Your task to perform on an android device: Set the phone to "Do not disturb". Image 0: 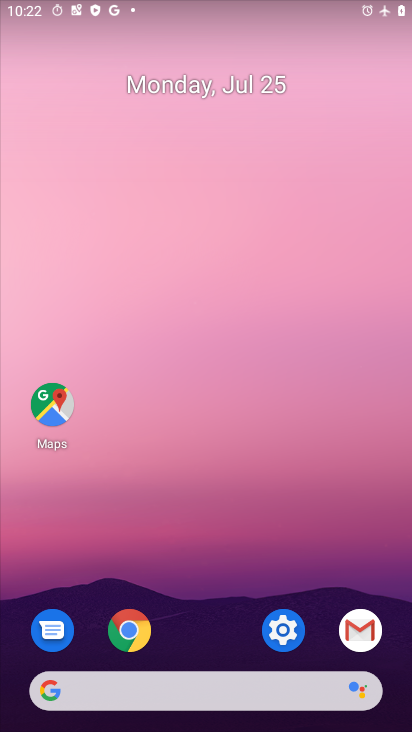
Step 0: click (282, 624)
Your task to perform on an android device: Set the phone to "Do not disturb". Image 1: 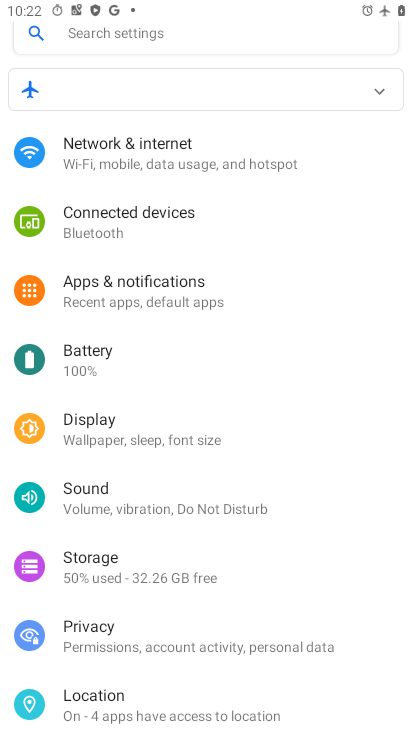
Step 1: click (135, 31)
Your task to perform on an android device: Set the phone to "Do not disturb". Image 2: 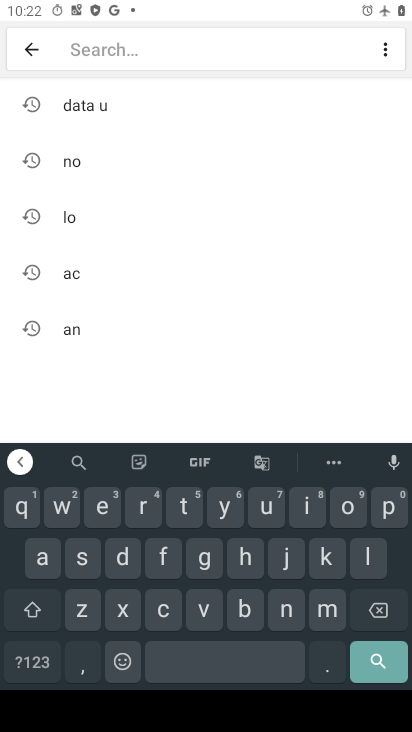
Step 2: click (122, 550)
Your task to perform on an android device: Set the phone to "Do not disturb". Image 3: 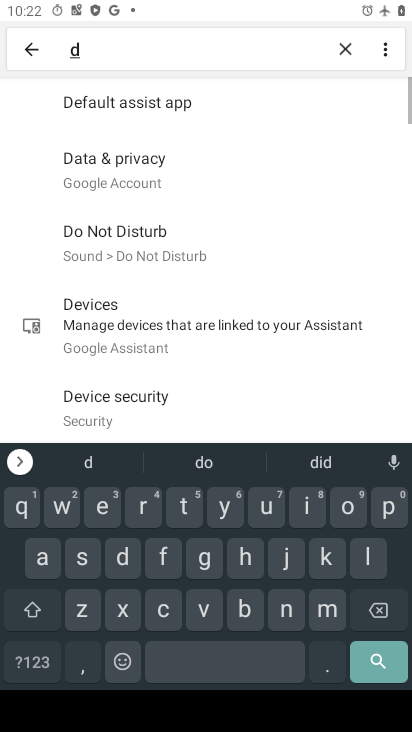
Step 3: click (295, 610)
Your task to perform on an android device: Set the phone to "Do not disturb". Image 4: 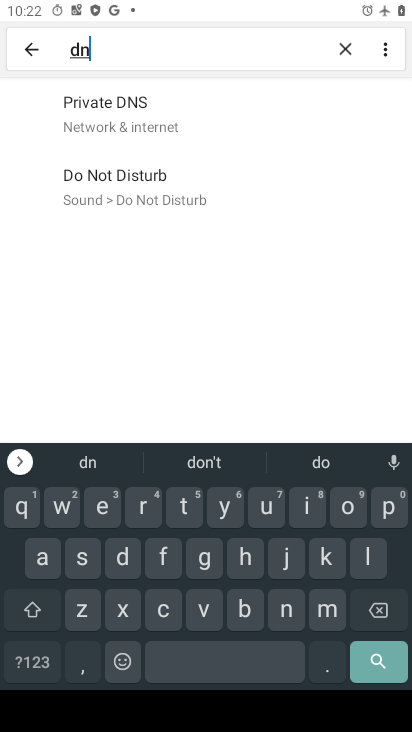
Step 4: click (148, 191)
Your task to perform on an android device: Set the phone to "Do not disturb". Image 5: 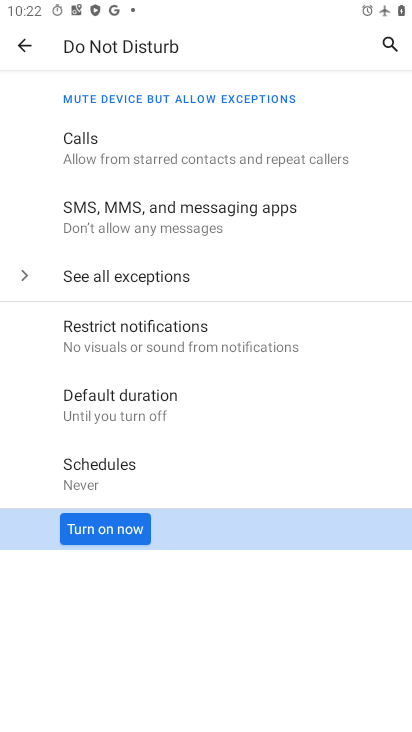
Step 5: click (115, 518)
Your task to perform on an android device: Set the phone to "Do not disturb". Image 6: 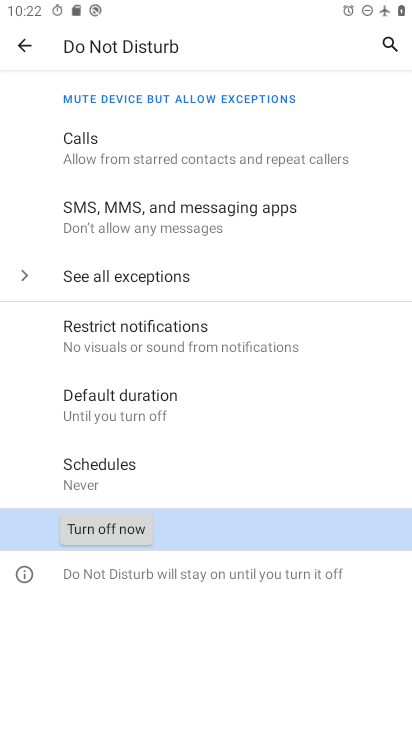
Step 6: task complete